Your task to perform on an android device: What's the weather going to be tomorrow? Image 0: 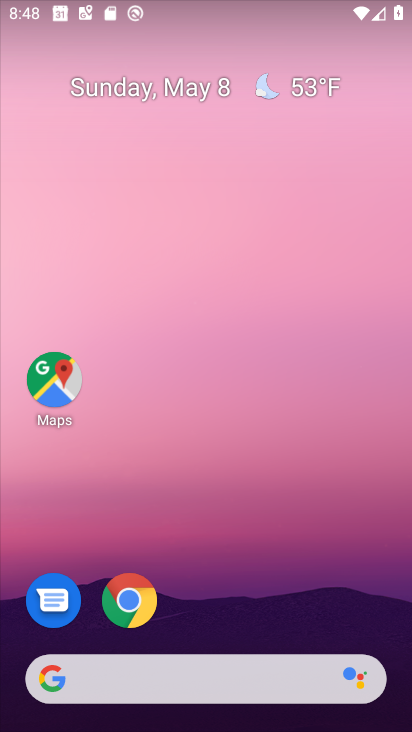
Step 0: drag from (215, 619) to (227, 5)
Your task to perform on an android device: What's the weather going to be tomorrow? Image 1: 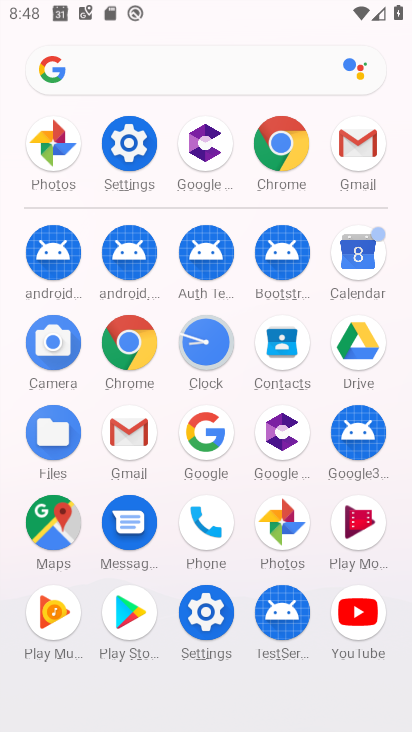
Step 1: click (206, 452)
Your task to perform on an android device: What's the weather going to be tomorrow? Image 2: 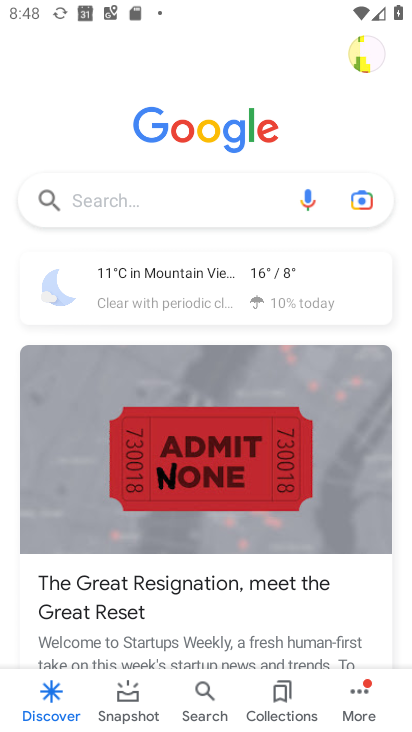
Step 2: click (173, 203)
Your task to perform on an android device: What's the weather going to be tomorrow? Image 3: 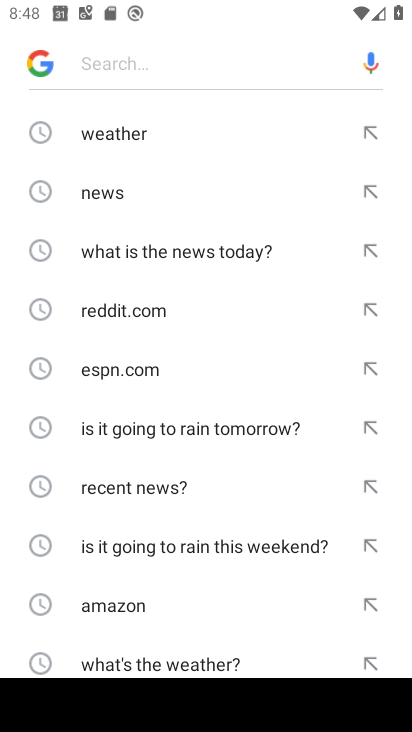
Step 3: click (165, 130)
Your task to perform on an android device: What's the weather going to be tomorrow? Image 4: 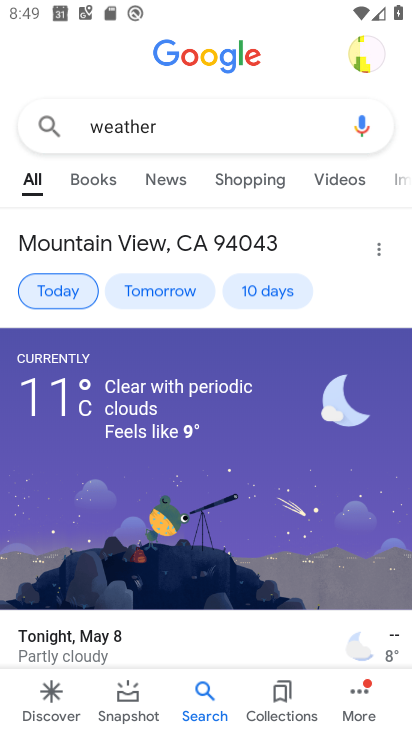
Step 4: click (177, 283)
Your task to perform on an android device: What's the weather going to be tomorrow? Image 5: 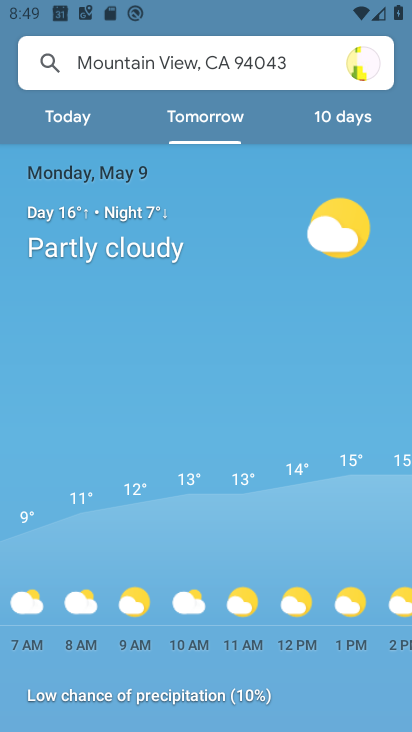
Step 5: task complete